Your task to perform on an android device: What's on my calendar tomorrow? Image 0: 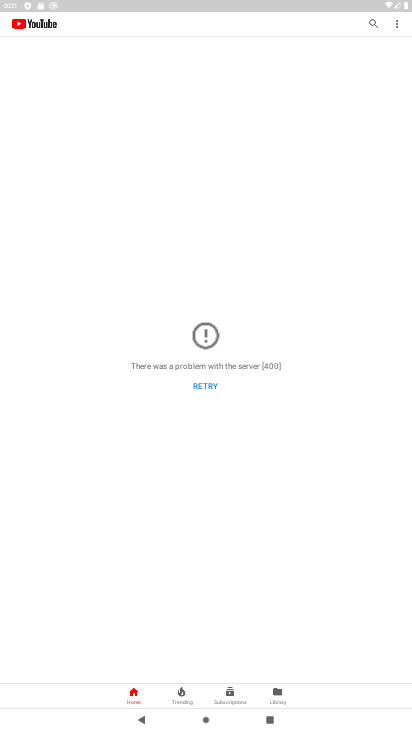
Step 0: press home button
Your task to perform on an android device: What's on my calendar tomorrow? Image 1: 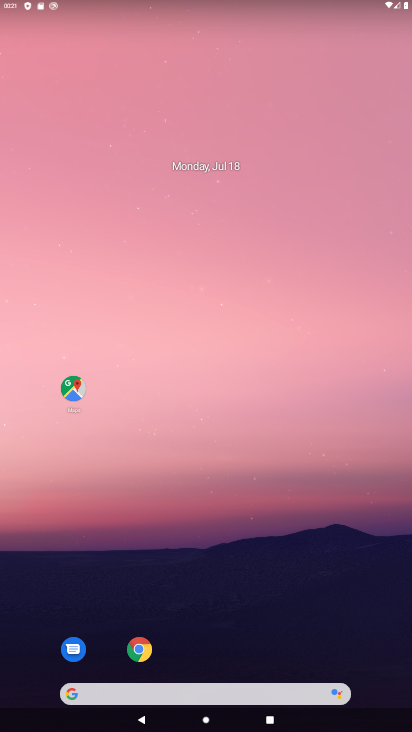
Step 1: drag from (218, 662) to (165, 18)
Your task to perform on an android device: What's on my calendar tomorrow? Image 2: 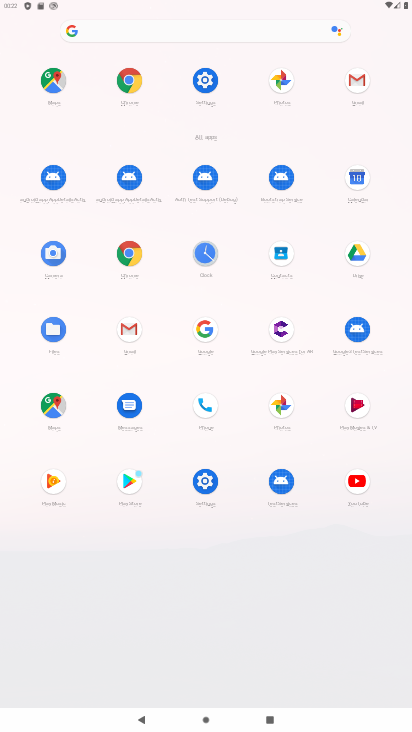
Step 2: click (362, 203)
Your task to perform on an android device: What's on my calendar tomorrow? Image 3: 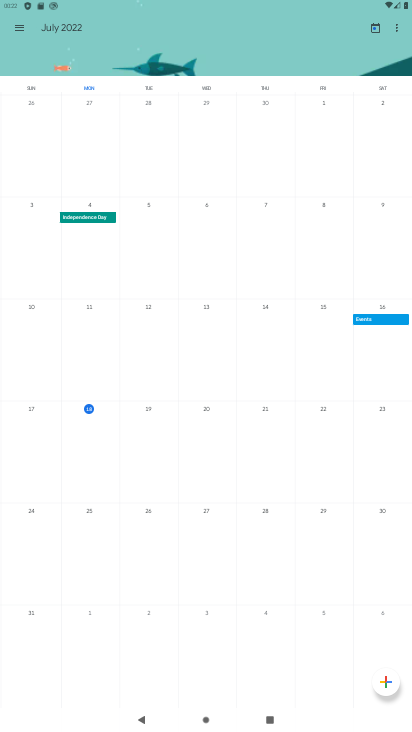
Step 3: drag from (348, 415) to (2, 423)
Your task to perform on an android device: What's on my calendar tomorrow? Image 4: 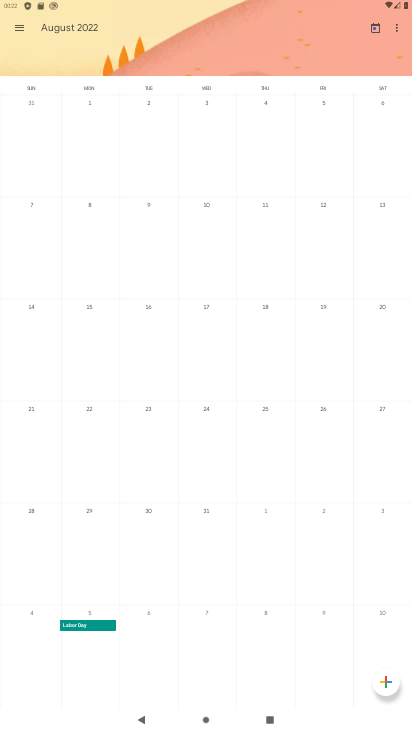
Step 4: drag from (90, 178) to (400, 269)
Your task to perform on an android device: What's on my calendar tomorrow? Image 5: 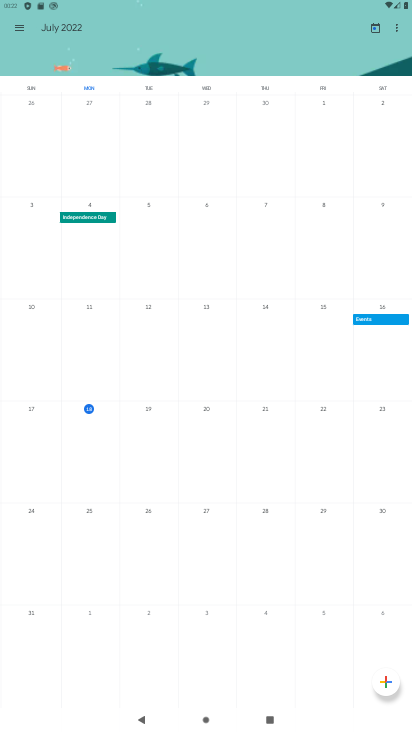
Step 5: click (149, 412)
Your task to perform on an android device: What's on my calendar tomorrow? Image 6: 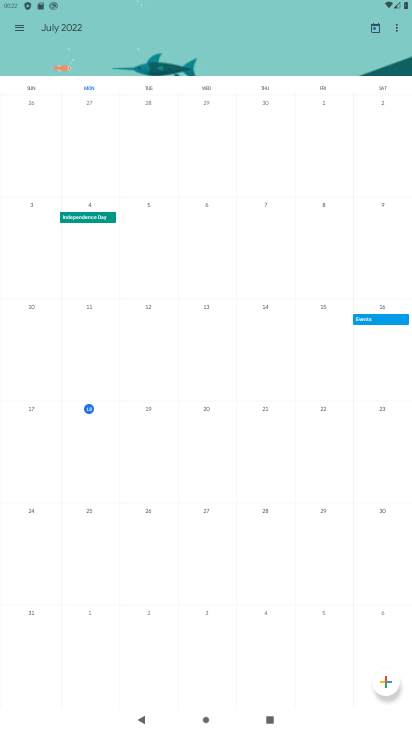
Step 6: click (149, 412)
Your task to perform on an android device: What's on my calendar tomorrow? Image 7: 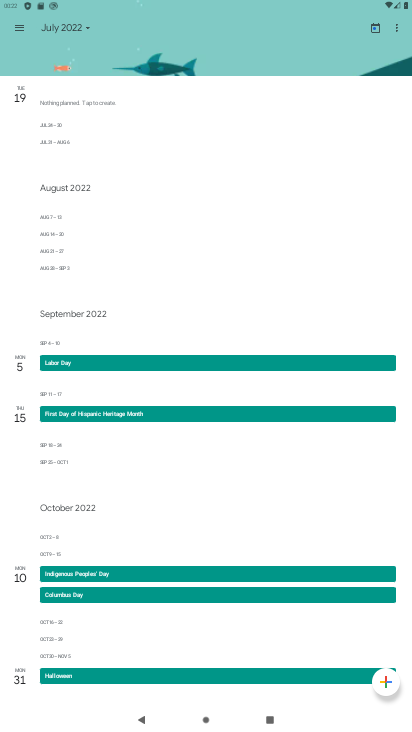
Step 7: task complete